Your task to perform on an android device: Open the calendar app, open the side menu, and click the "Day" option Image 0: 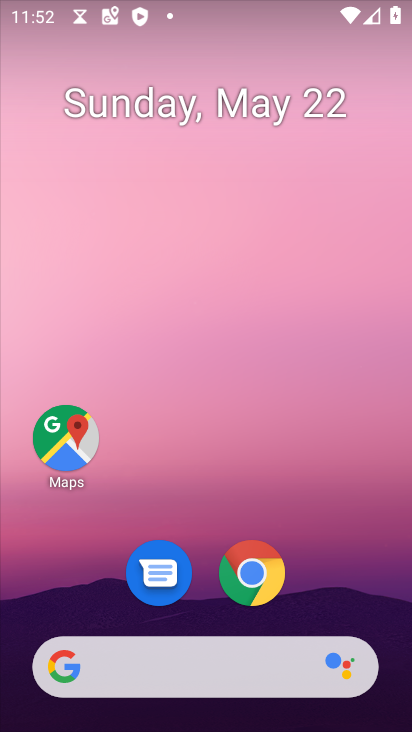
Step 0: drag from (212, 662) to (342, 118)
Your task to perform on an android device: Open the calendar app, open the side menu, and click the "Day" option Image 1: 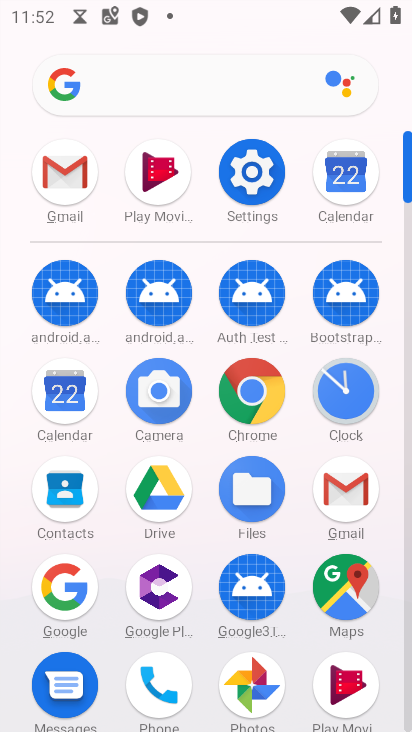
Step 1: click (74, 402)
Your task to perform on an android device: Open the calendar app, open the side menu, and click the "Day" option Image 2: 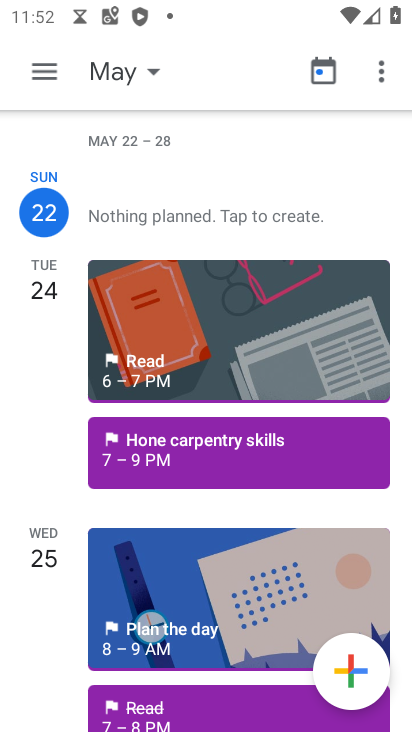
Step 2: click (35, 71)
Your task to perform on an android device: Open the calendar app, open the side menu, and click the "Day" option Image 3: 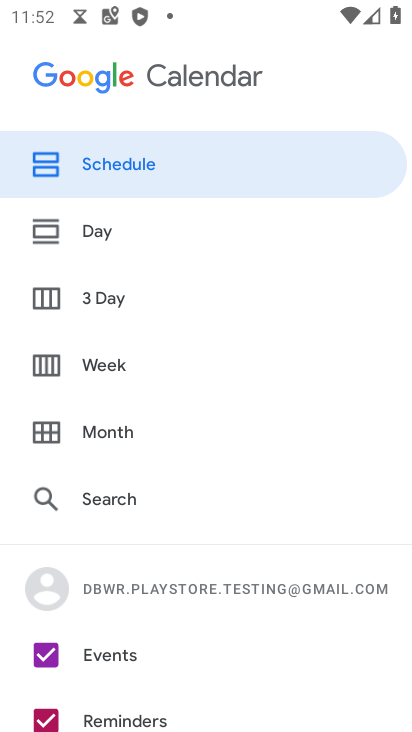
Step 3: click (111, 228)
Your task to perform on an android device: Open the calendar app, open the side menu, and click the "Day" option Image 4: 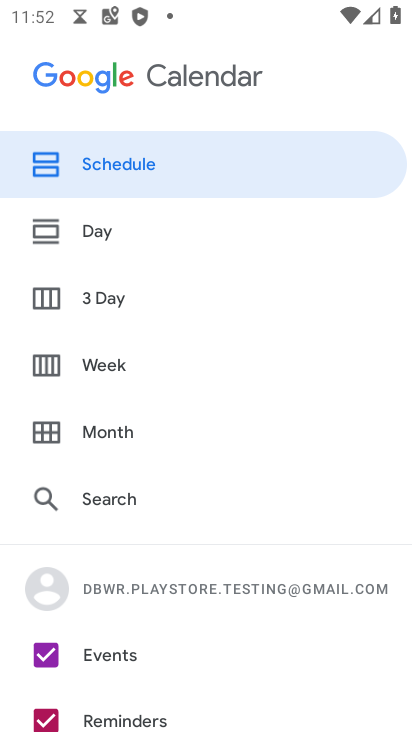
Step 4: click (105, 230)
Your task to perform on an android device: Open the calendar app, open the side menu, and click the "Day" option Image 5: 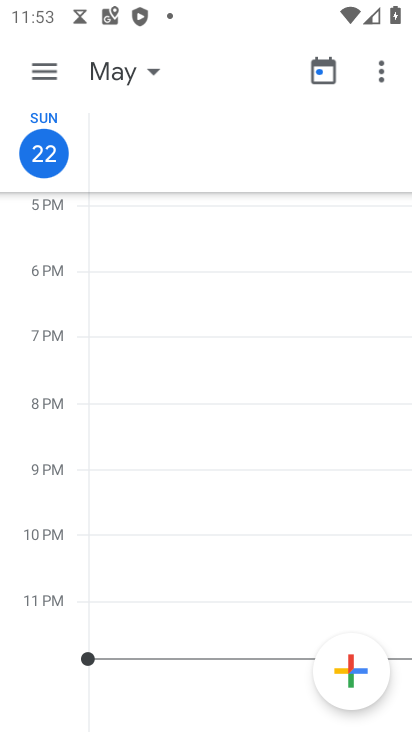
Step 5: task complete